Your task to perform on an android device: Go to Android settings Image 0: 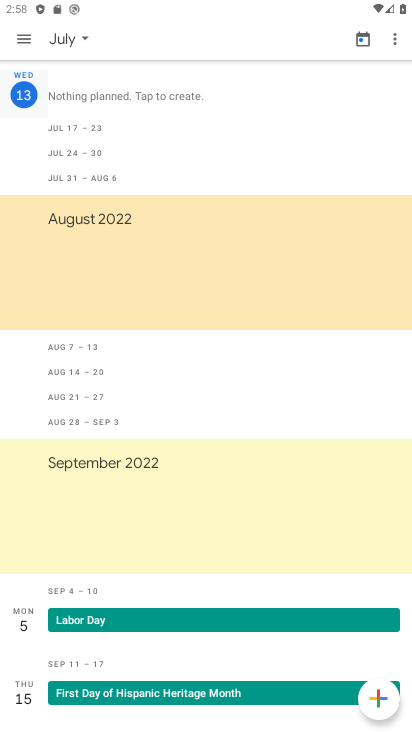
Step 0: press home button
Your task to perform on an android device: Go to Android settings Image 1: 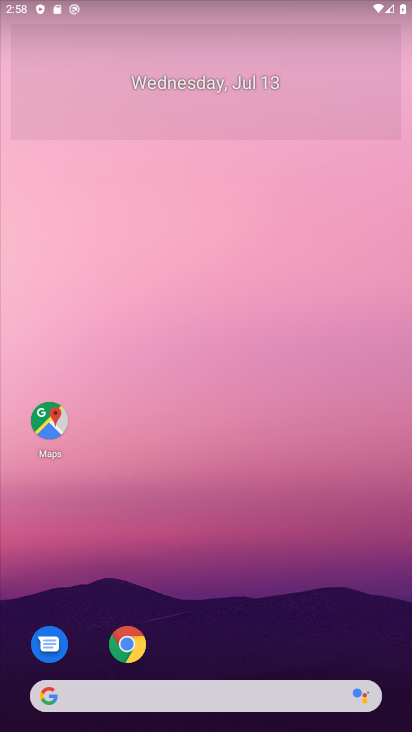
Step 1: drag from (252, 644) to (153, 180)
Your task to perform on an android device: Go to Android settings Image 2: 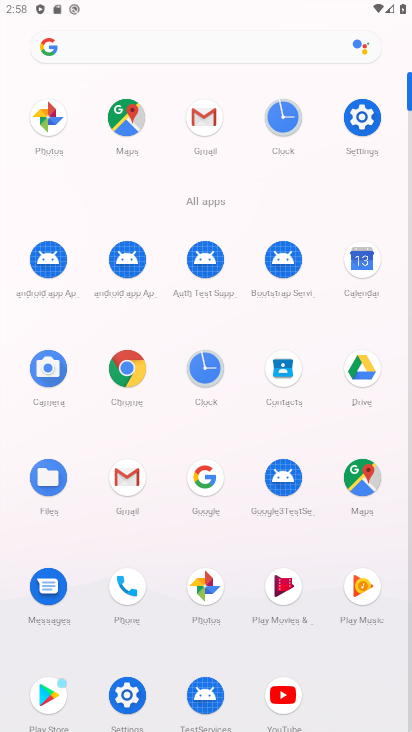
Step 2: click (369, 119)
Your task to perform on an android device: Go to Android settings Image 3: 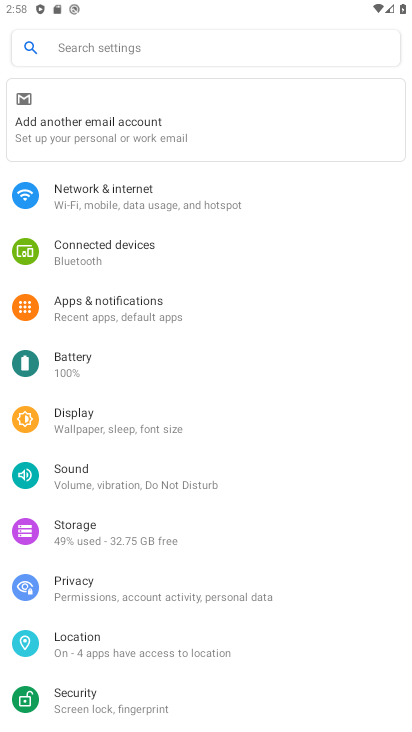
Step 3: task complete